Your task to perform on an android device: Open Maps and search for coffee Image 0: 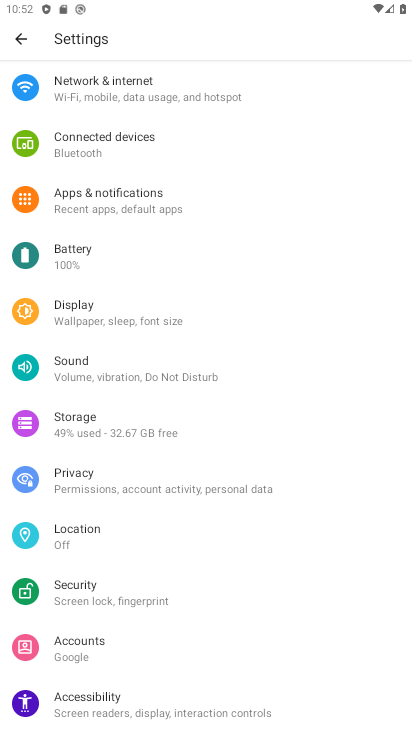
Step 0: press home button
Your task to perform on an android device: Open Maps and search for coffee Image 1: 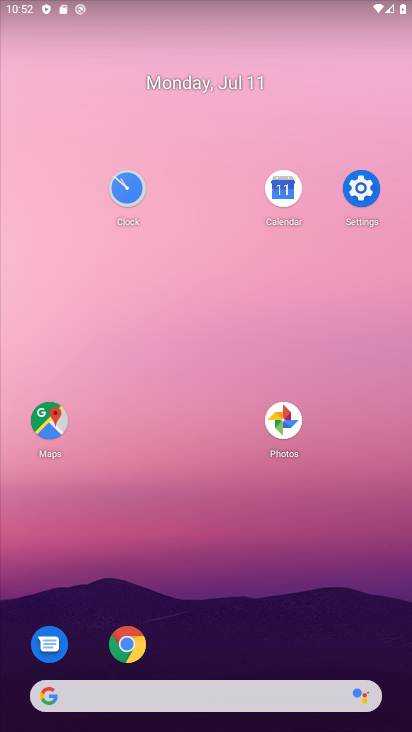
Step 1: click (55, 410)
Your task to perform on an android device: Open Maps and search for coffee Image 2: 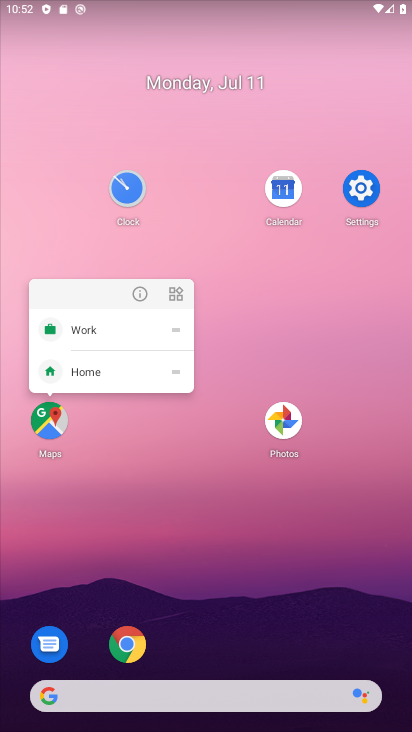
Step 2: click (57, 410)
Your task to perform on an android device: Open Maps and search for coffee Image 3: 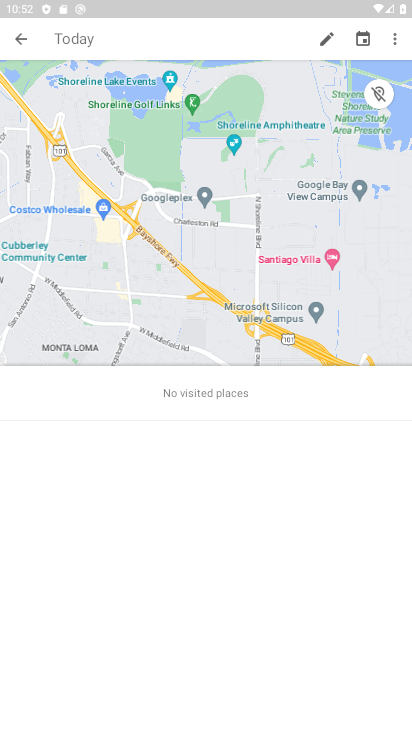
Step 3: click (163, 41)
Your task to perform on an android device: Open Maps and search for coffee Image 4: 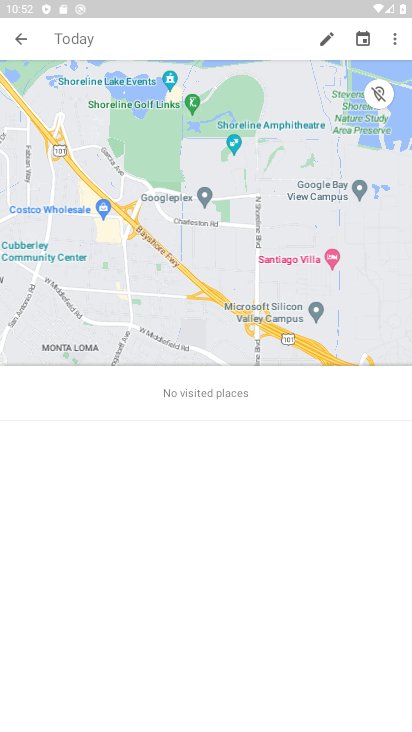
Step 4: click (23, 36)
Your task to perform on an android device: Open Maps and search for coffee Image 5: 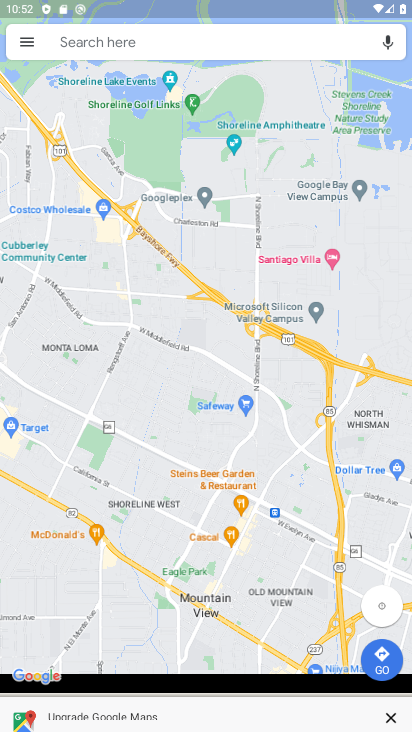
Step 5: click (140, 43)
Your task to perform on an android device: Open Maps and search for coffee Image 6: 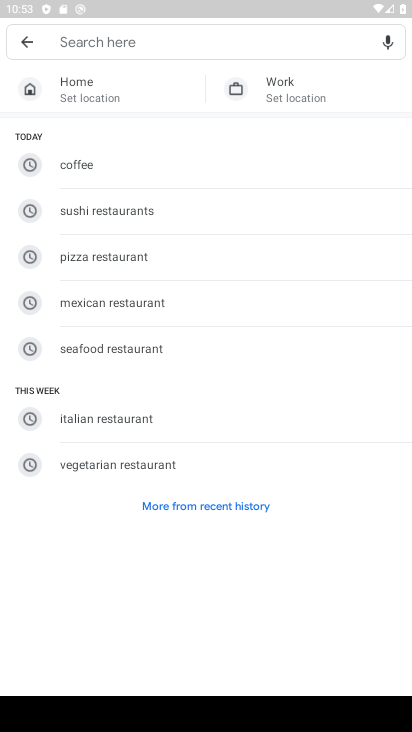
Step 6: type "coffee"
Your task to perform on an android device: Open Maps and search for coffee Image 7: 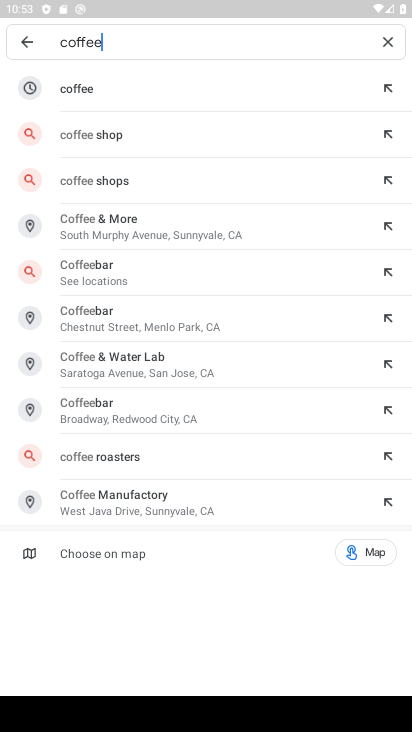
Step 7: click (206, 99)
Your task to perform on an android device: Open Maps and search for coffee Image 8: 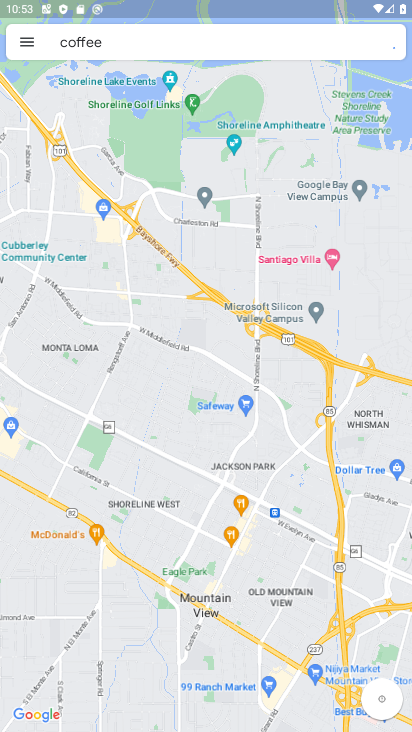
Step 8: task complete